Your task to perform on an android device: Open Google Chrome and click the shortcut for Amazon.com Image 0: 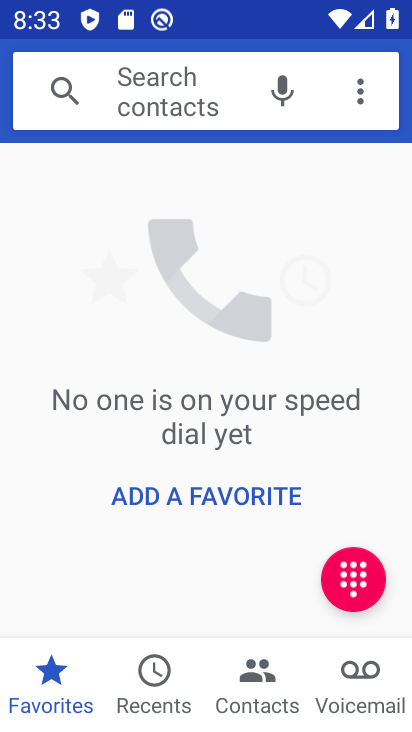
Step 0: press back button
Your task to perform on an android device: Open Google Chrome and click the shortcut for Amazon.com Image 1: 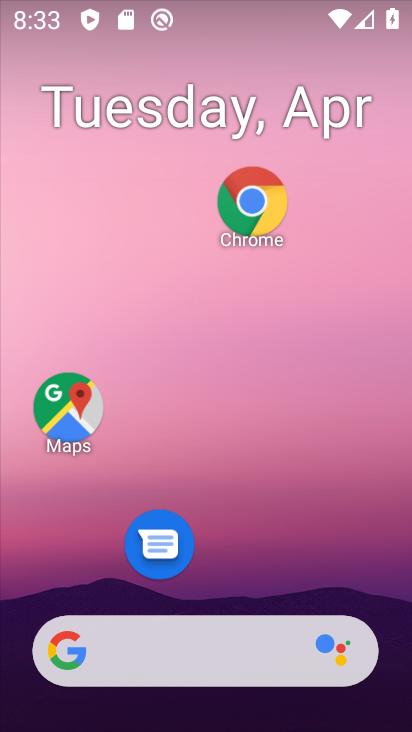
Step 1: drag from (246, 497) to (275, 49)
Your task to perform on an android device: Open Google Chrome and click the shortcut for Amazon.com Image 2: 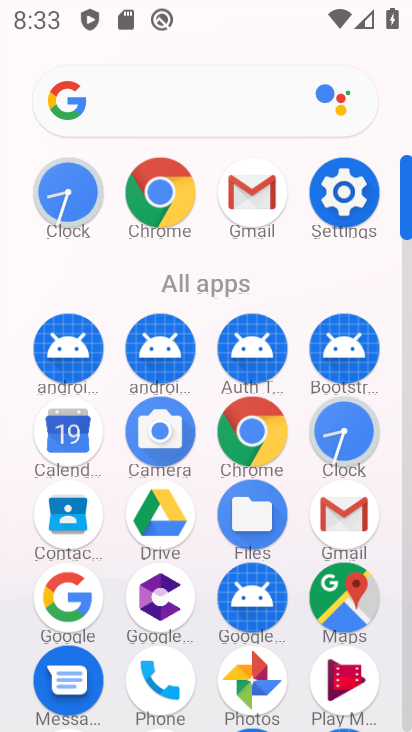
Step 2: click (176, 182)
Your task to perform on an android device: Open Google Chrome and click the shortcut for Amazon.com Image 3: 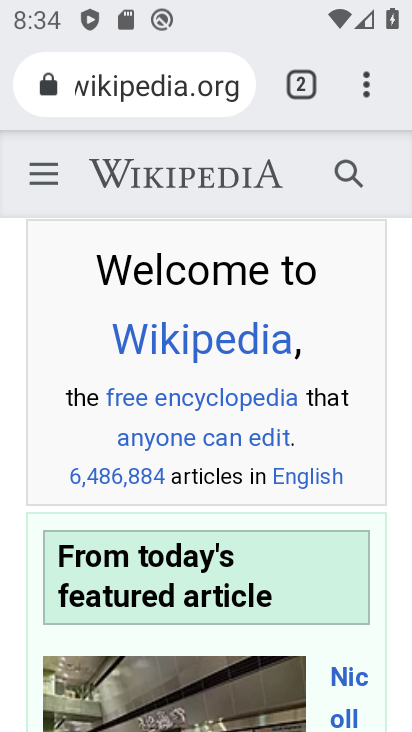
Step 3: click (303, 74)
Your task to perform on an android device: Open Google Chrome and click the shortcut for Amazon.com Image 4: 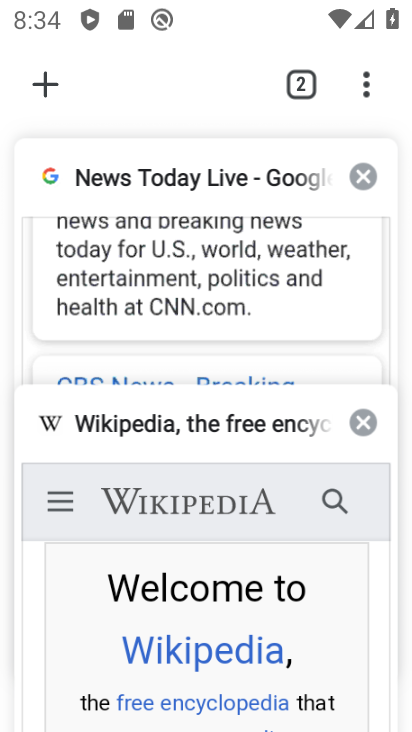
Step 4: click (35, 72)
Your task to perform on an android device: Open Google Chrome and click the shortcut for Amazon.com Image 5: 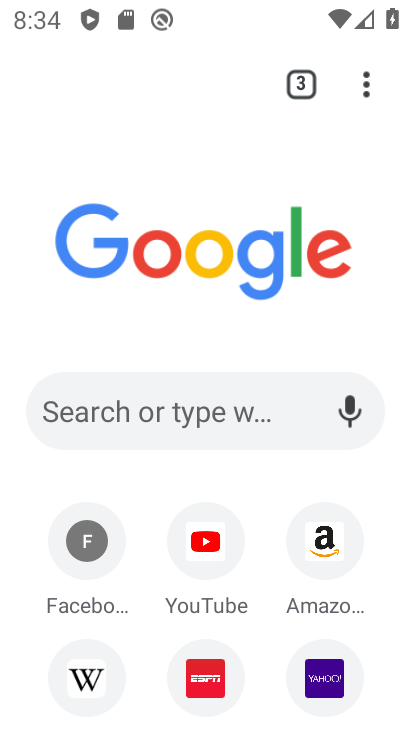
Step 5: click (329, 555)
Your task to perform on an android device: Open Google Chrome and click the shortcut for Amazon.com Image 6: 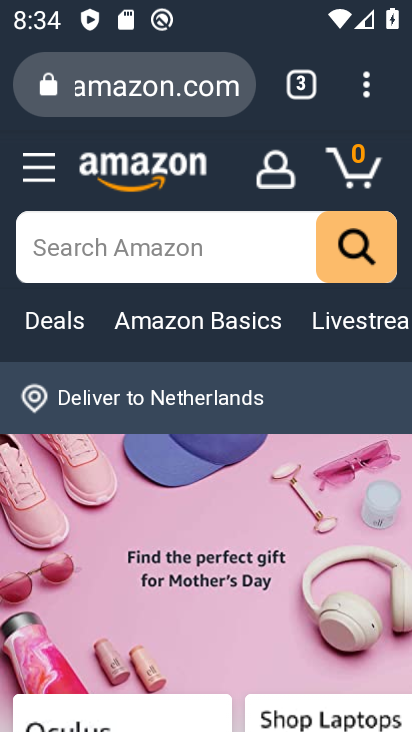
Step 6: task complete